Your task to perform on an android device: What's the latest video from GameSpot eSports? Image 0: 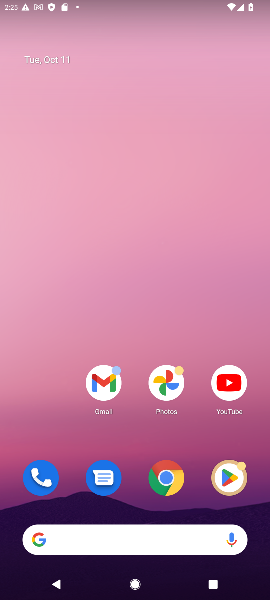
Step 0: drag from (143, 544) to (138, 45)
Your task to perform on an android device: What's the latest video from GameSpot eSports? Image 1: 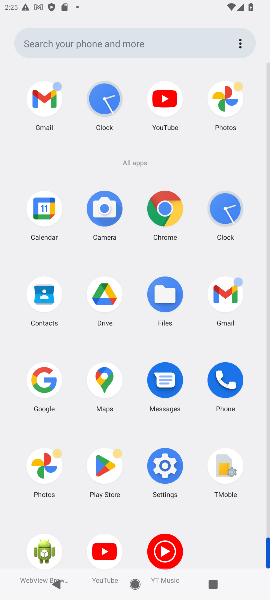
Step 1: click (114, 543)
Your task to perform on an android device: What's the latest video from GameSpot eSports? Image 2: 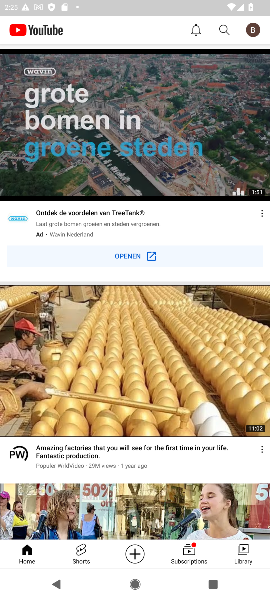
Step 2: click (223, 34)
Your task to perform on an android device: What's the latest video from GameSpot eSports? Image 3: 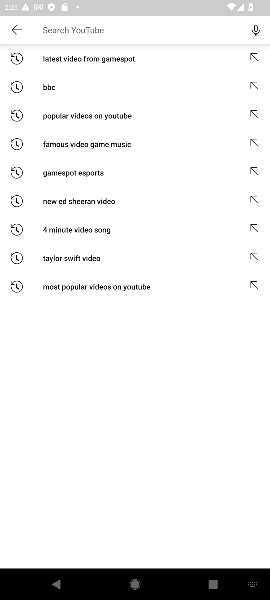
Step 3: type "gamesports eports"
Your task to perform on an android device: What's the latest video from GameSpot eSports? Image 4: 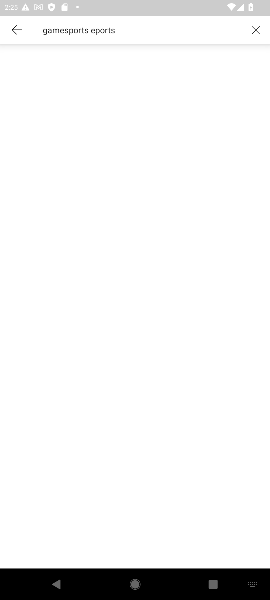
Step 4: press enter
Your task to perform on an android device: What's the latest video from GameSpot eSports? Image 5: 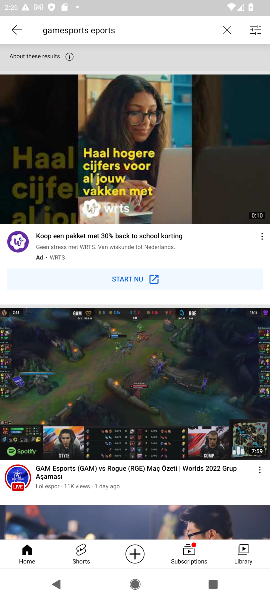
Step 5: task complete